Your task to perform on an android device: set the timer Image 0: 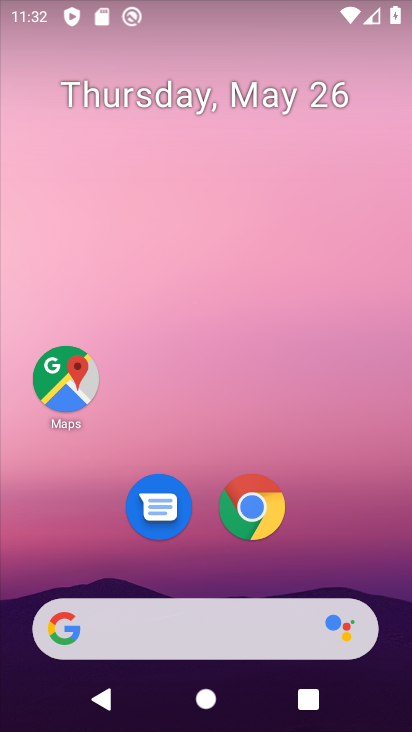
Step 0: drag from (350, 532) to (296, 1)
Your task to perform on an android device: set the timer Image 1: 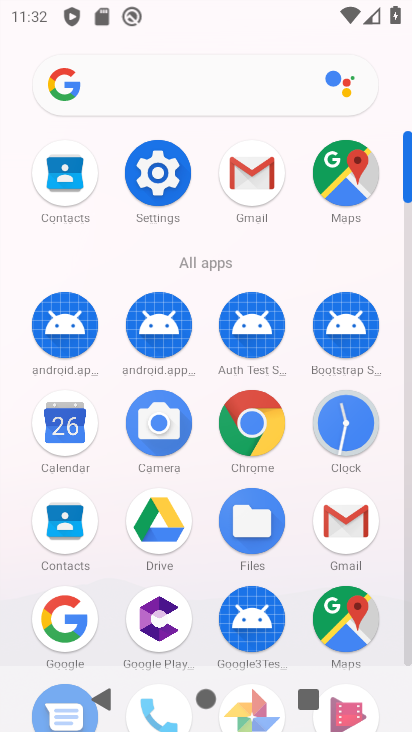
Step 1: click (335, 410)
Your task to perform on an android device: set the timer Image 2: 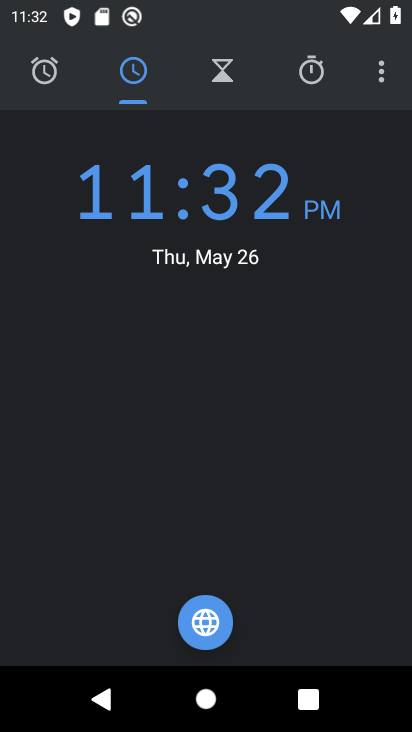
Step 2: click (61, 76)
Your task to perform on an android device: set the timer Image 3: 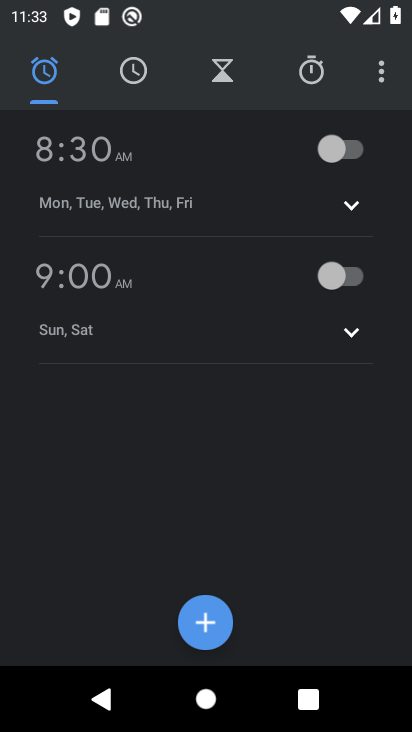
Step 3: click (239, 79)
Your task to perform on an android device: set the timer Image 4: 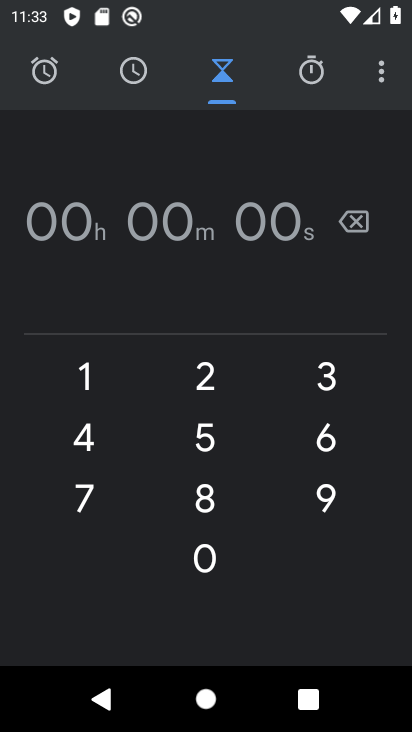
Step 4: click (209, 430)
Your task to perform on an android device: set the timer Image 5: 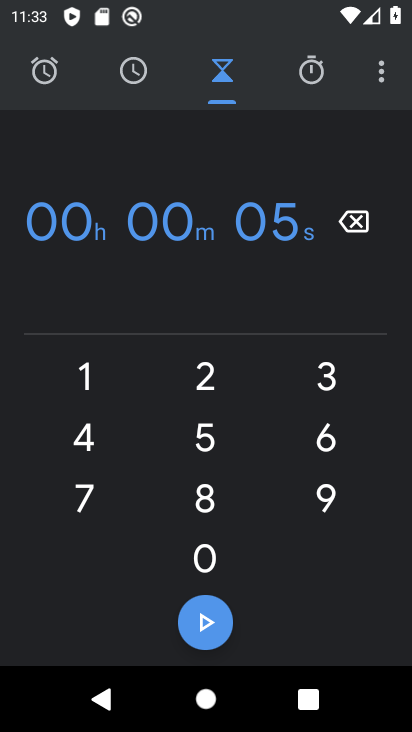
Step 5: task complete